Your task to perform on an android device: Go to CNN.com Image 0: 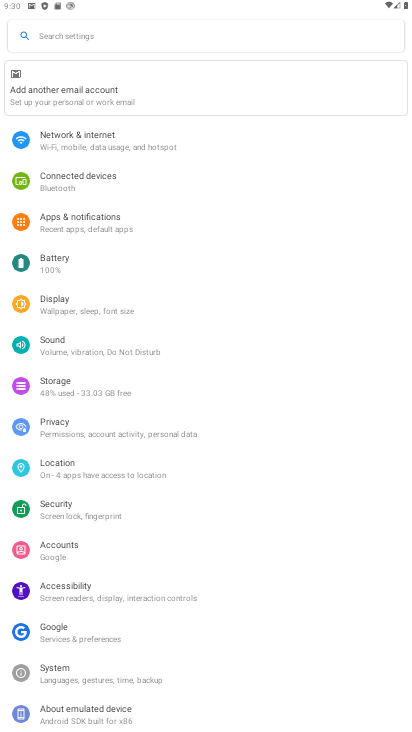
Step 0: press home button
Your task to perform on an android device: Go to CNN.com Image 1: 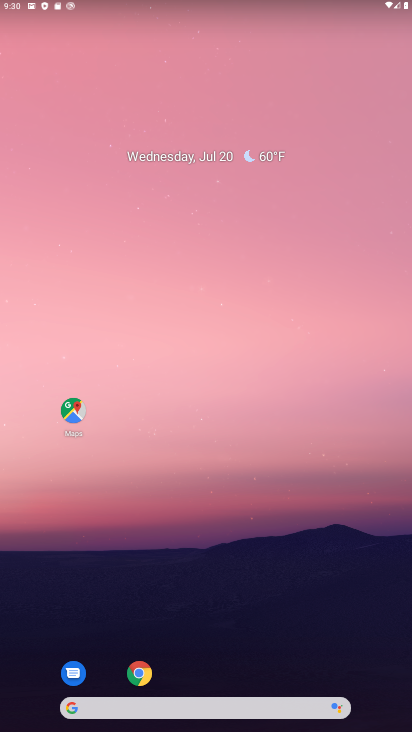
Step 1: drag from (236, 650) to (224, 156)
Your task to perform on an android device: Go to CNN.com Image 2: 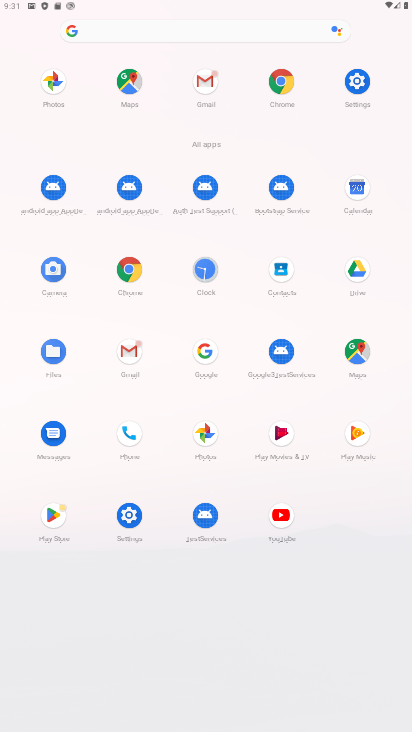
Step 2: click (129, 274)
Your task to perform on an android device: Go to CNN.com Image 3: 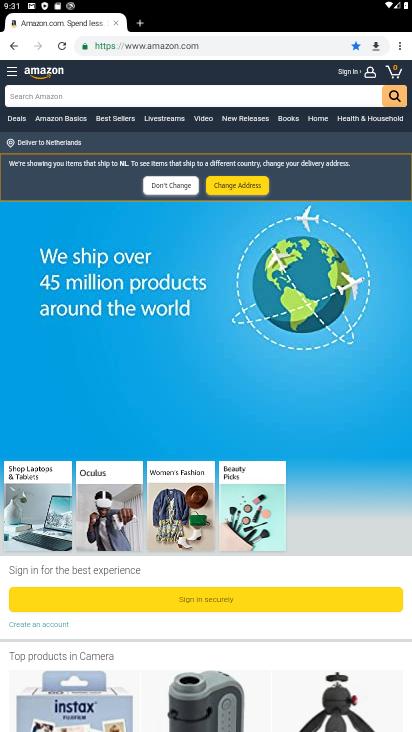
Step 3: click (220, 39)
Your task to perform on an android device: Go to CNN.com Image 4: 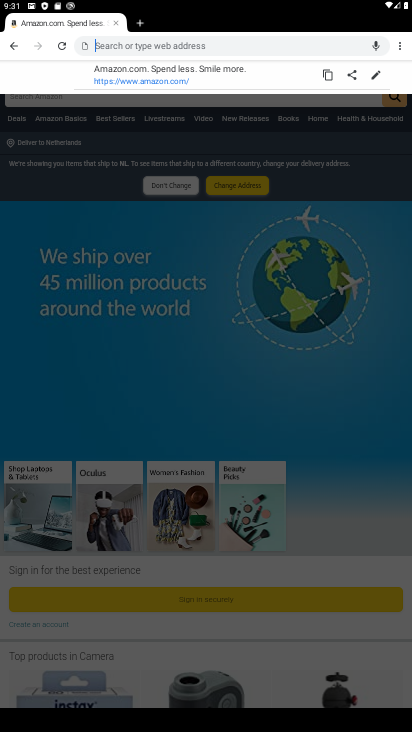
Step 4: type "CNN.com"
Your task to perform on an android device: Go to CNN.com Image 5: 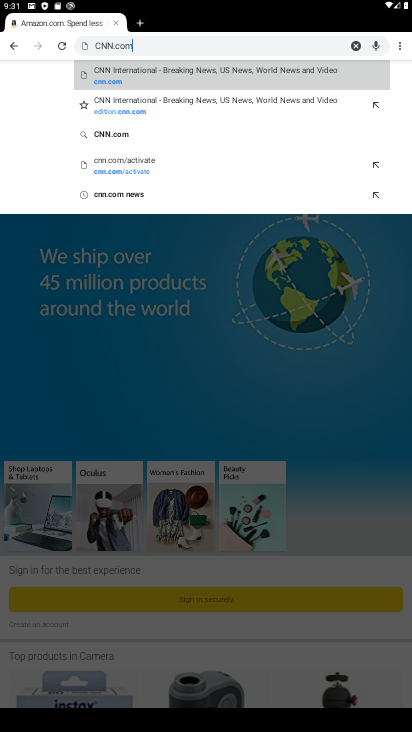
Step 5: click (160, 63)
Your task to perform on an android device: Go to CNN.com Image 6: 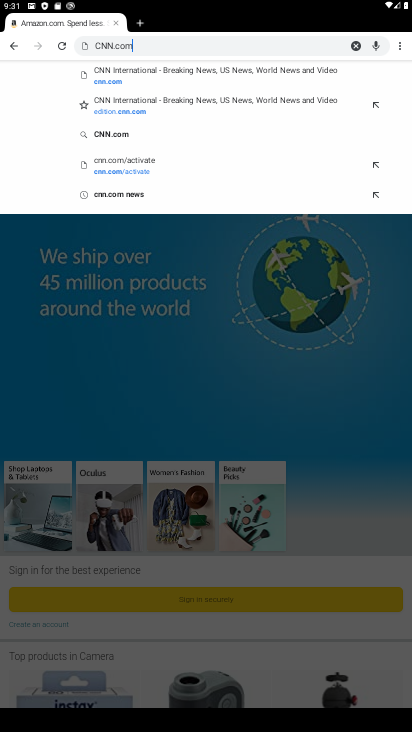
Step 6: click (170, 108)
Your task to perform on an android device: Go to CNN.com Image 7: 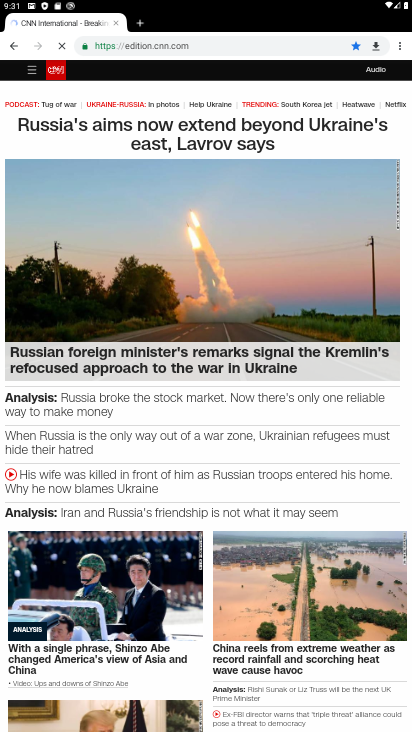
Step 7: task complete